Your task to perform on an android device: Check the weather Image 0: 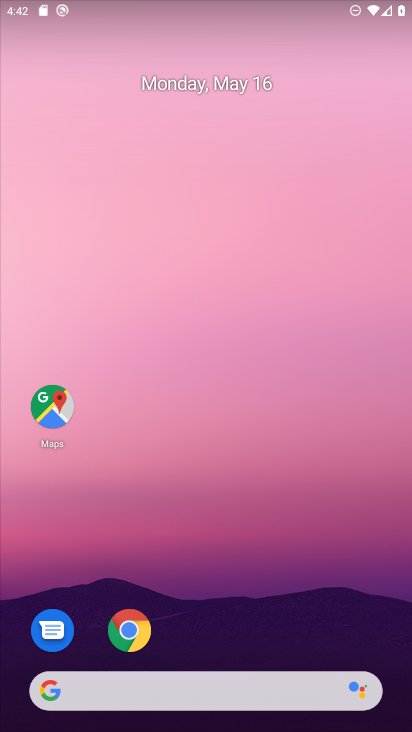
Step 0: click (145, 635)
Your task to perform on an android device: Check the weather Image 1: 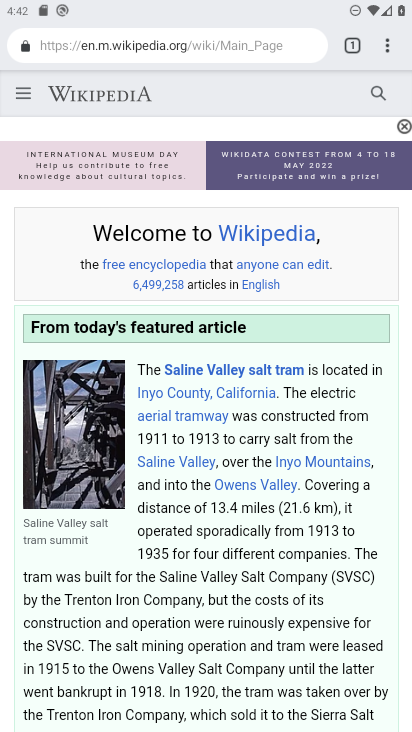
Step 1: click (187, 51)
Your task to perform on an android device: Check the weather Image 2: 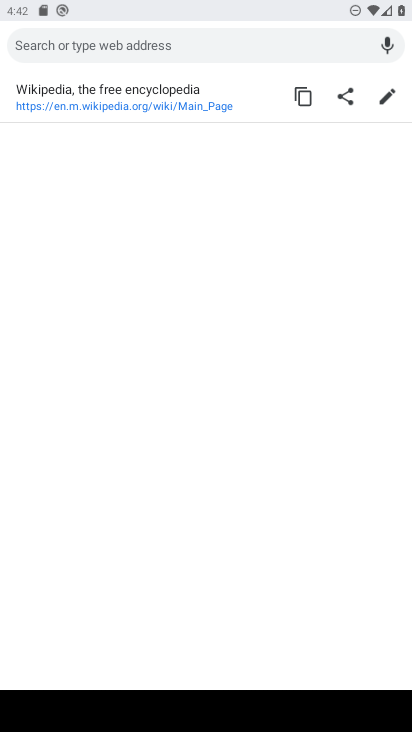
Step 2: click (187, 44)
Your task to perform on an android device: Check the weather Image 3: 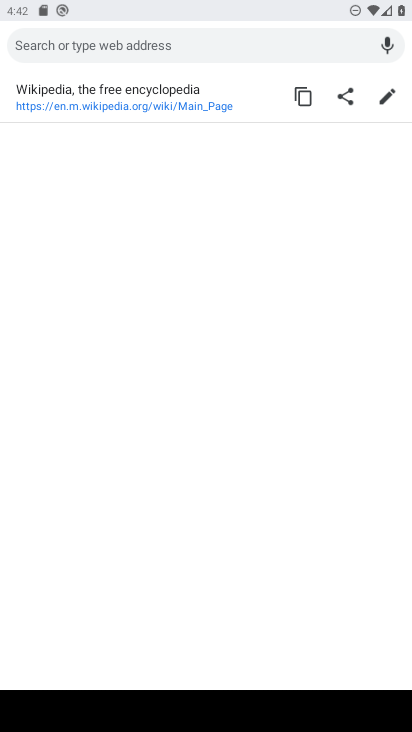
Step 3: type "weather"
Your task to perform on an android device: Check the weather Image 4: 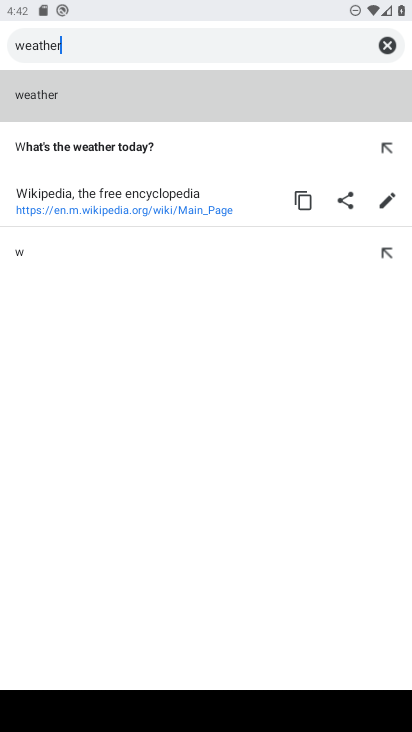
Step 4: type ""
Your task to perform on an android device: Check the weather Image 5: 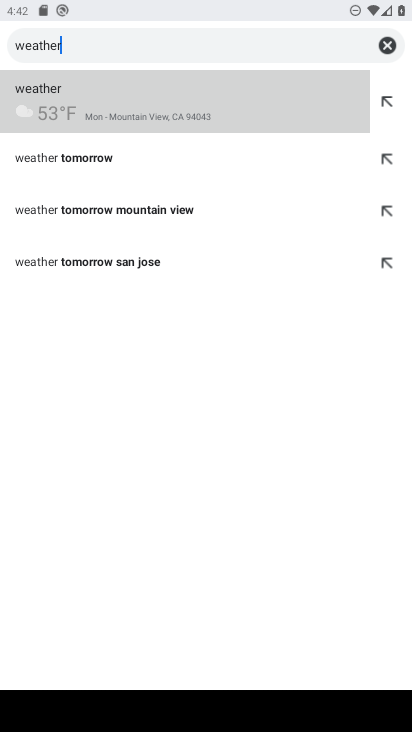
Step 5: click (166, 108)
Your task to perform on an android device: Check the weather Image 6: 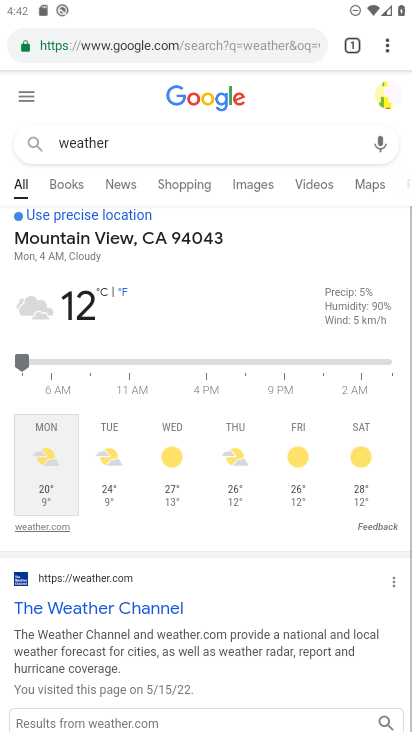
Step 6: task complete